Your task to perform on an android device: allow notifications from all sites in the chrome app Image 0: 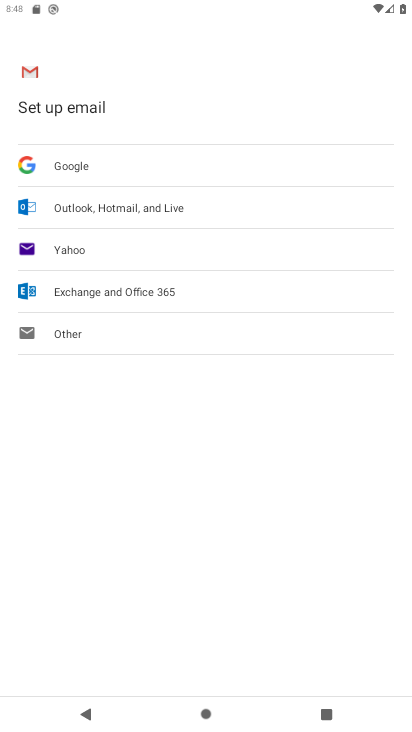
Step 0: press back button
Your task to perform on an android device: allow notifications from all sites in the chrome app Image 1: 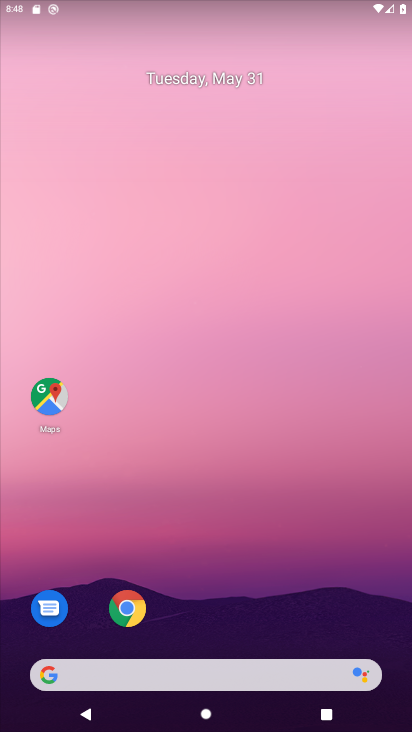
Step 1: click (128, 605)
Your task to perform on an android device: allow notifications from all sites in the chrome app Image 2: 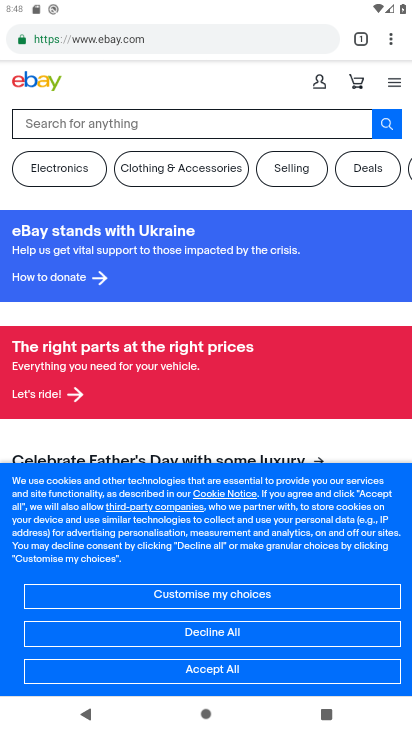
Step 2: click (393, 37)
Your task to perform on an android device: allow notifications from all sites in the chrome app Image 3: 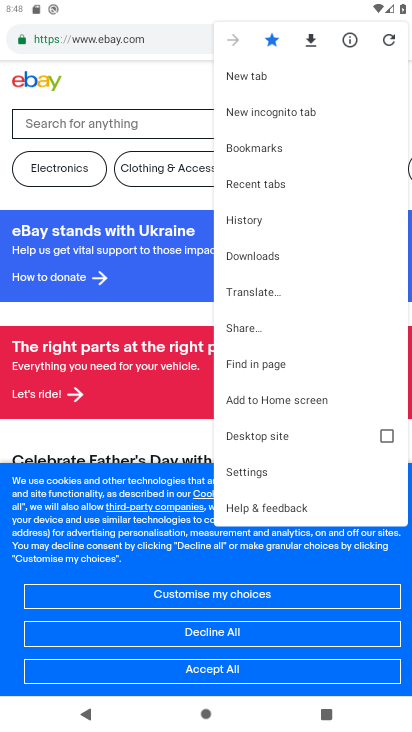
Step 3: click (253, 467)
Your task to perform on an android device: allow notifications from all sites in the chrome app Image 4: 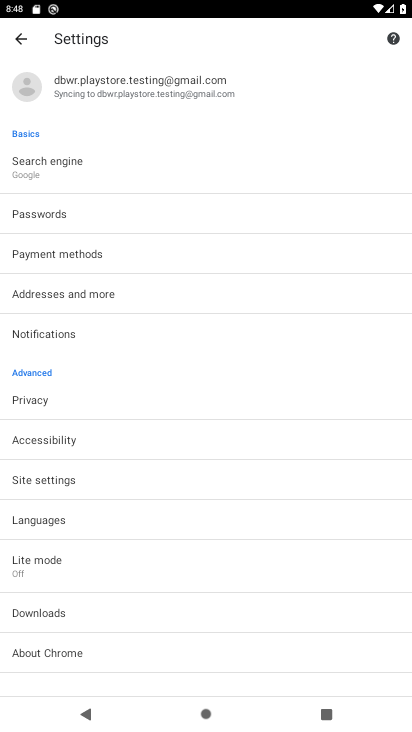
Step 4: click (57, 326)
Your task to perform on an android device: allow notifications from all sites in the chrome app Image 5: 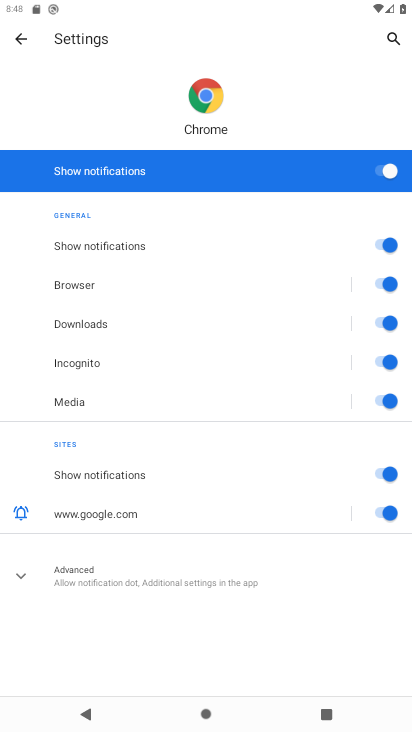
Step 5: task complete